Your task to perform on an android device: open a bookmark in the chrome app Image 0: 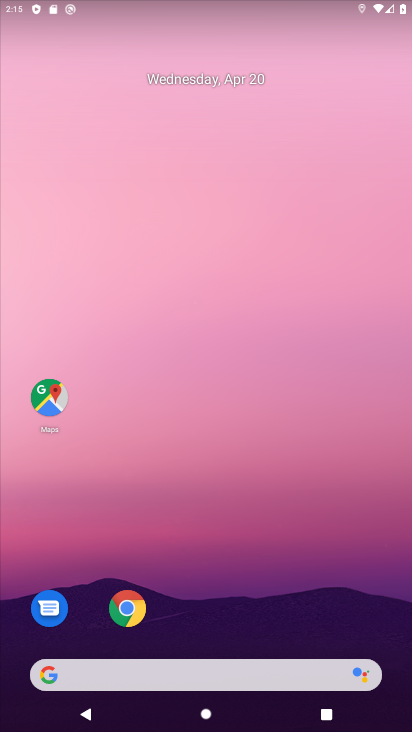
Step 0: drag from (377, 591) to (348, 207)
Your task to perform on an android device: open a bookmark in the chrome app Image 1: 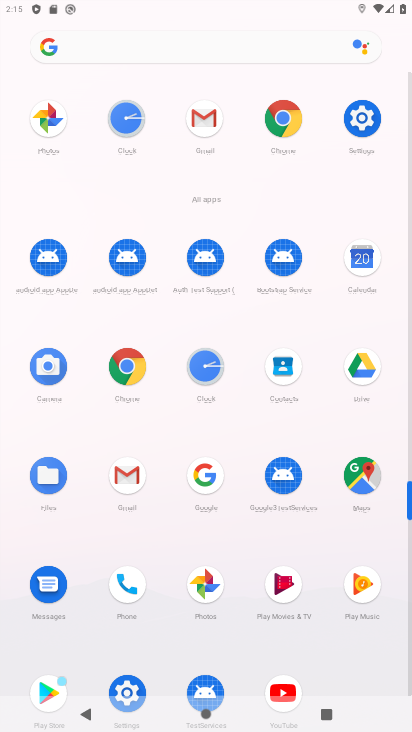
Step 1: click (125, 368)
Your task to perform on an android device: open a bookmark in the chrome app Image 2: 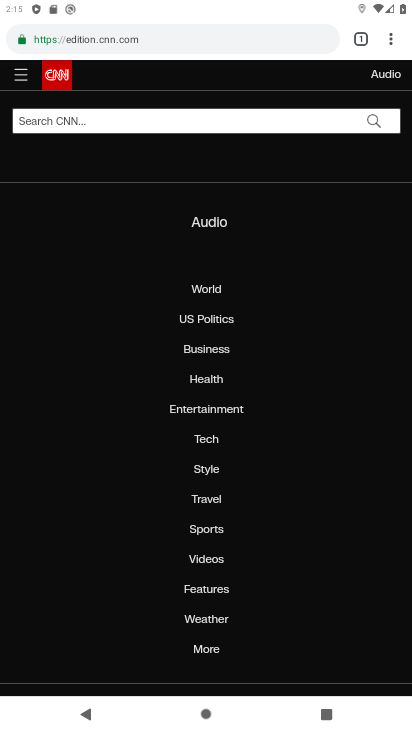
Step 2: task complete